Your task to perform on an android device: set the timer Image 0: 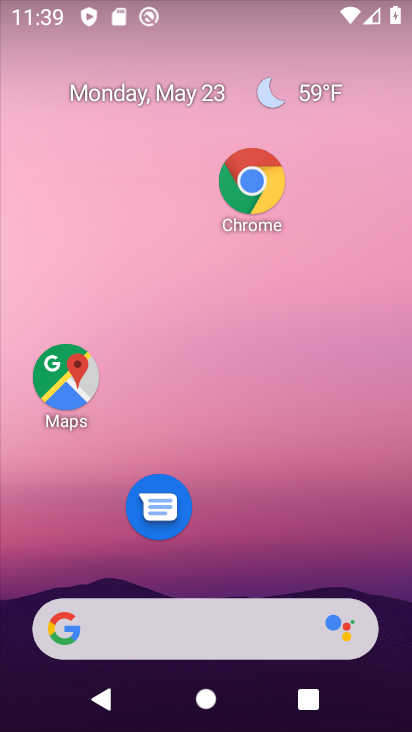
Step 0: drag from (283, 574) to (305, 258)
Your task to perform on an android device: set the timer Image 1: 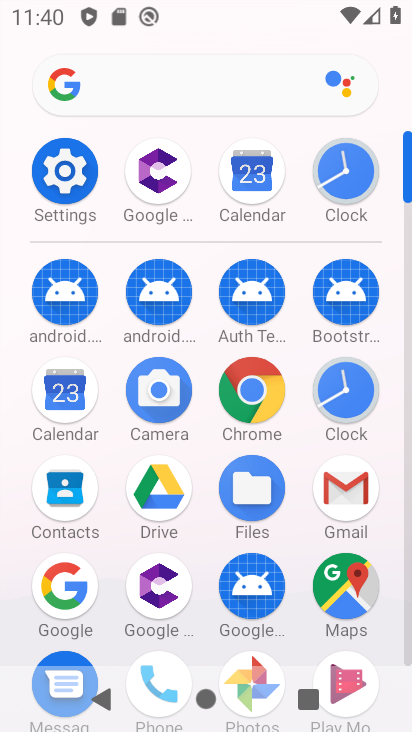
Step 1: click (337, 390)
Your task to perform on an android device: set the timer Image 2: 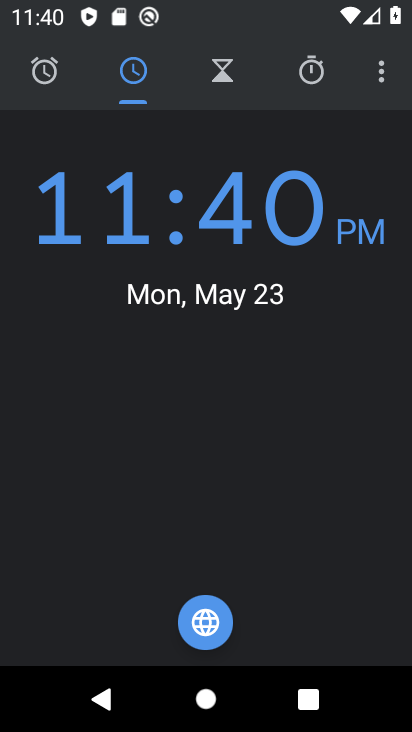
Step 2: click (228, 77)
Your task to perform on an android device: set the timer Image 3: 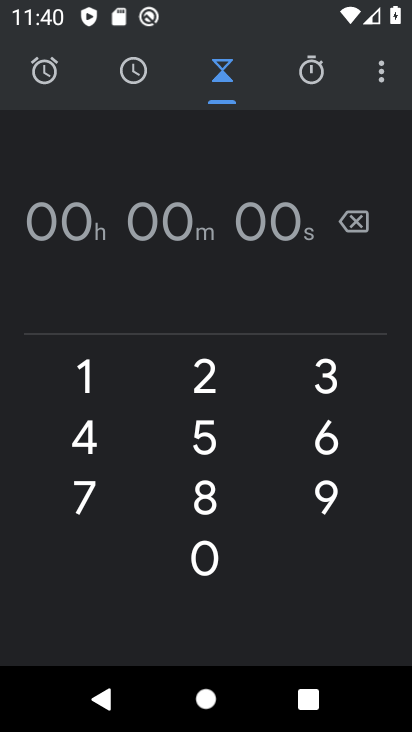
Step 3: click (155, 220)
Your task to perform on an android device: set the timer Image 4: 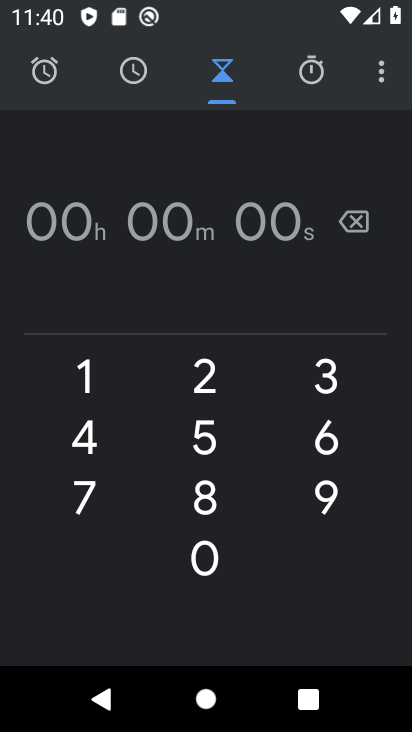
Step 4: type "887777878"
Your task to perform on an android device: set the timer Image 5: 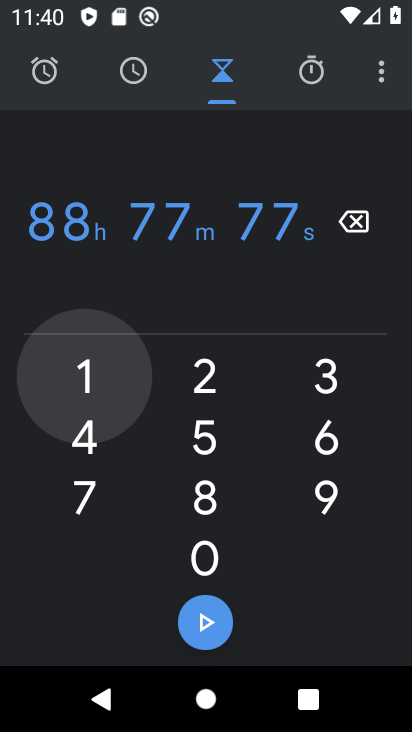
Step 5: click (217, 618)
Your task to perform on an android device: set the timer Image 6: 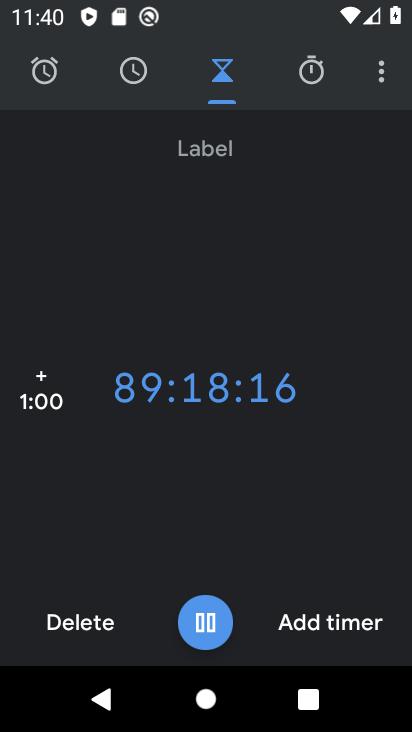
Step 6: click (217, 618)
Your task to perform on an android device: set the timer Image 7: 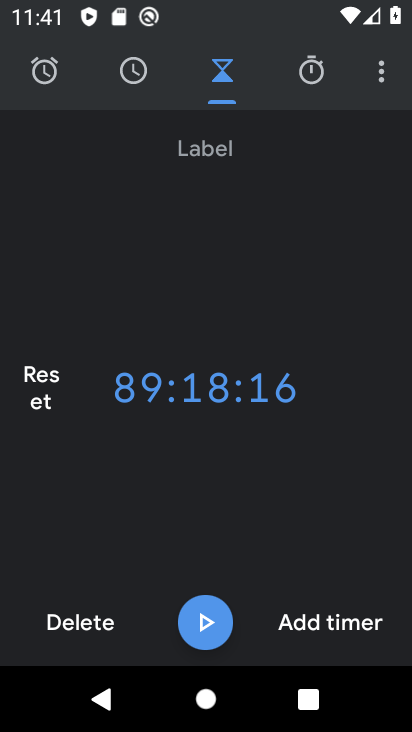
Step 7: task complete